Your task to perform on an android device: turn on priority inbox in the gmail app Image 0: 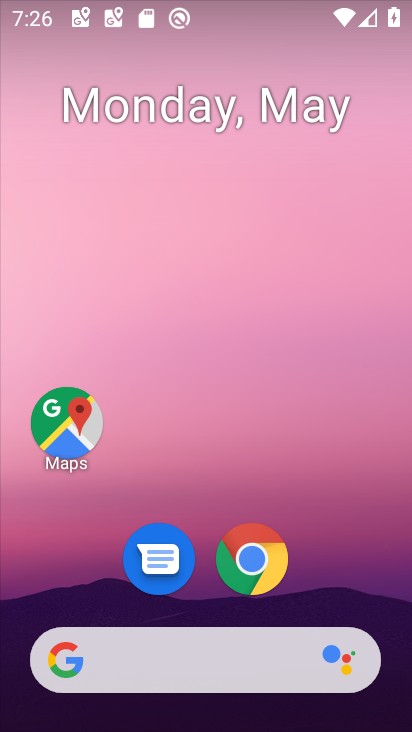
Step 0: drag from (372, 621) to (312, 112)
Your task to perform on an android device: turn on priority inbox in the gmail app Image 1: 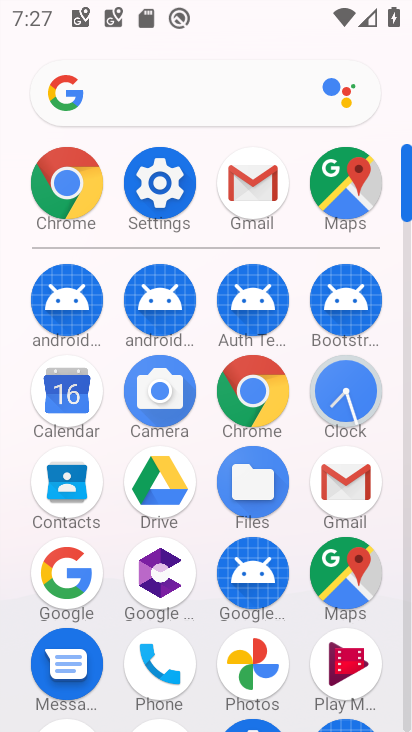
Step 1: click (337, 484)
Your task to perform on an android device: turn on priority inbox in the gmail app Image 2: 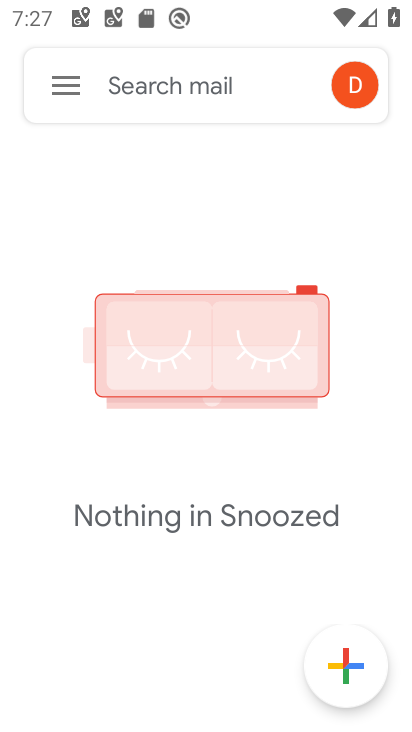
Step 2: click (54, 80)
Your task to perform on an android device: turn on priority inbox in the gmail app Image 3: 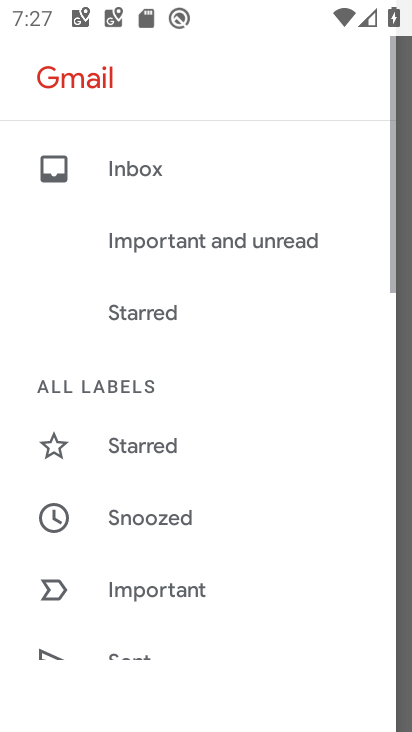
Step 3: drag from (127, 578) to (141, 4)
Your task to perform on an android device: turn on priority inbox in the gmail app Image 4: 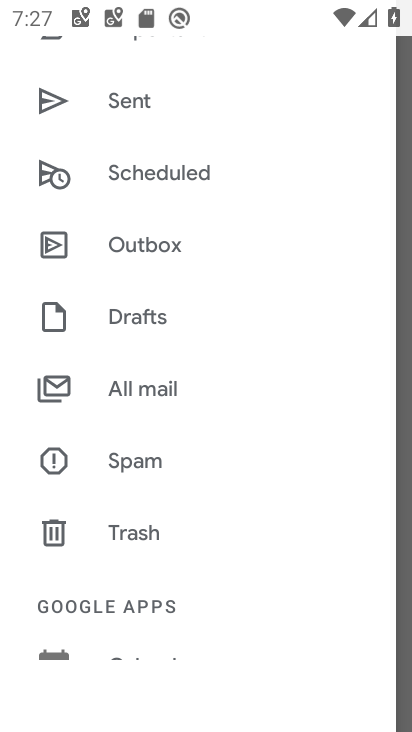
Step 4: drag from (150, 547) to (134, 254)
Your task to perform on an android device: turn on priority inbox in the gmail app Image 5: 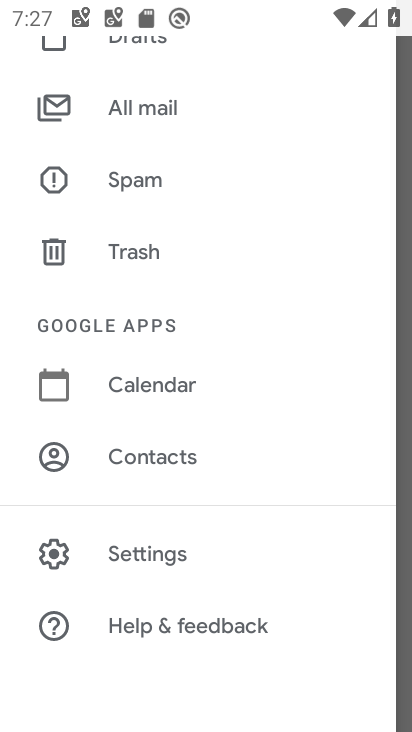
Step 5: click (132, 553)
Your task to perform on an android device: turn on priority inbox in the gmail app Image 6: 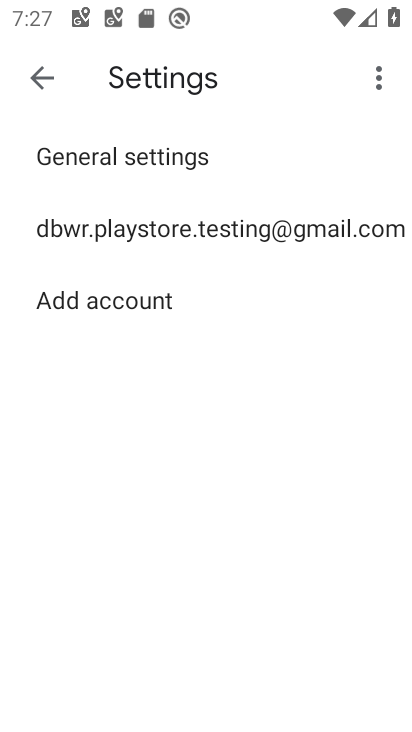
Step 6: click (119, 248)
Your task to perform on an android device: turn on priority inbox in the gmail app Image 7: 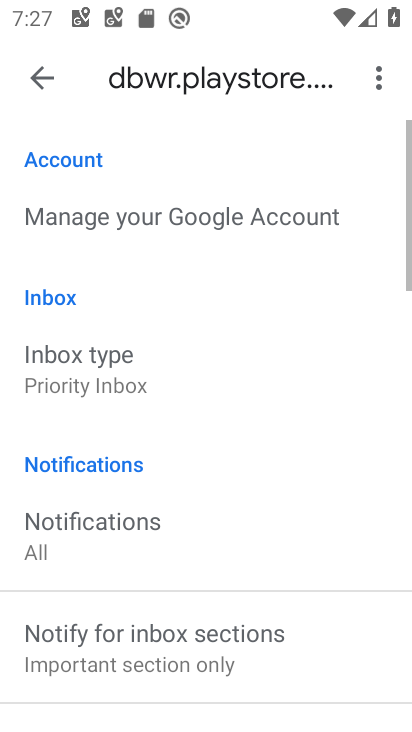
Step 7: click (90, 403)
Your task to perform on an android device: turn on priority inbox in the gmail app Image 8: 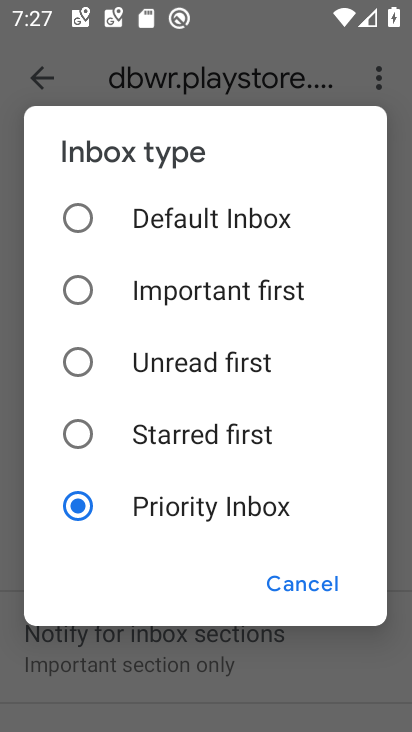
Step 8: task complete